Your task to perform on an android device: Open Youtube and go to "Your channel" Image 0: 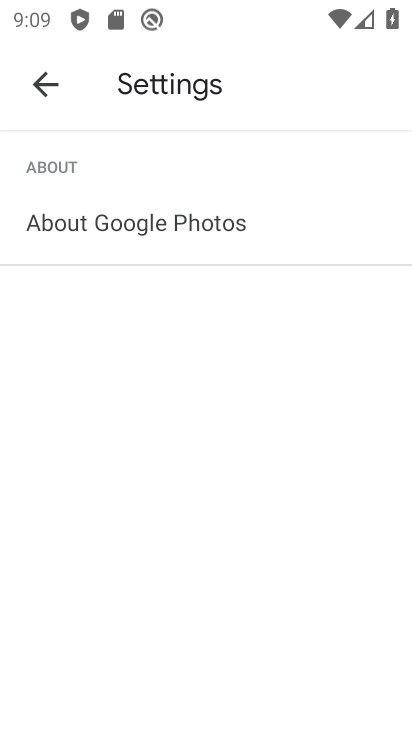
Step 0: press home button
Your task to perform on an android device: Open Youtube and go to "Your channel" Image 1: 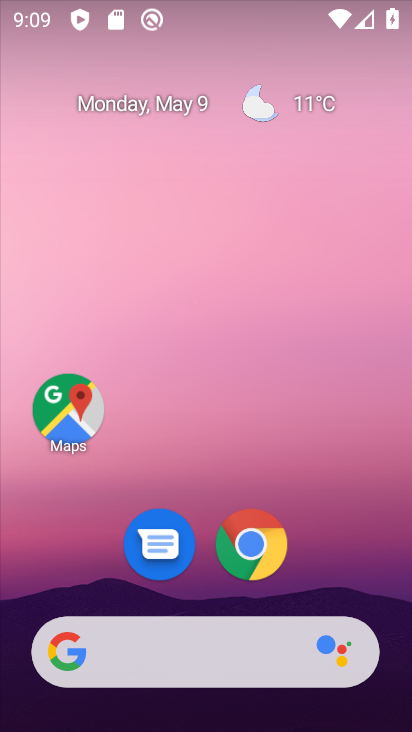
Step 1: drag from (388, 662) to (354, 169)
Your task to perform on an android device: Open Youtube and go to "Your channel" Image 2: 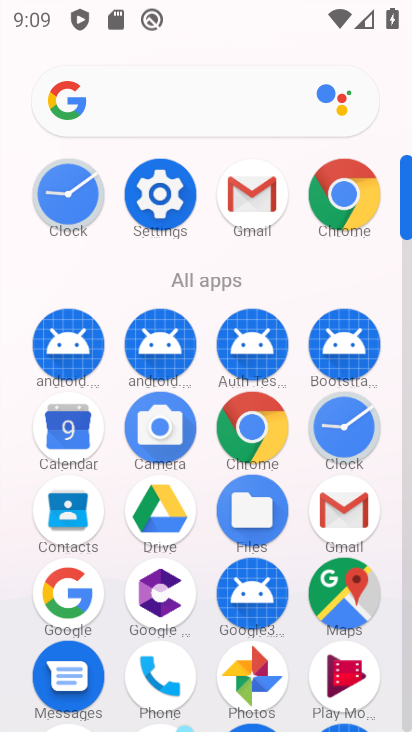
Step 2: drag from (405, 165) to (402, 127)
Your task to perform on an android device: Open Youtube and go to "Your channel" Image 3: 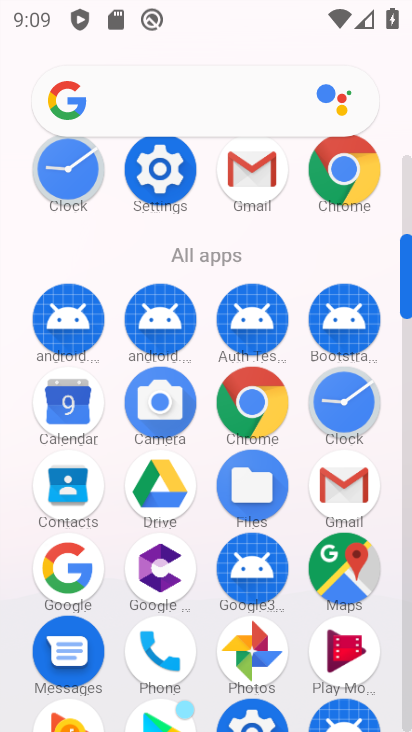
Step 3: drag from (409, 252) to (406, 142)
Your task to perform on an android device: Open Youtube and go to "Your channel" Image 4: 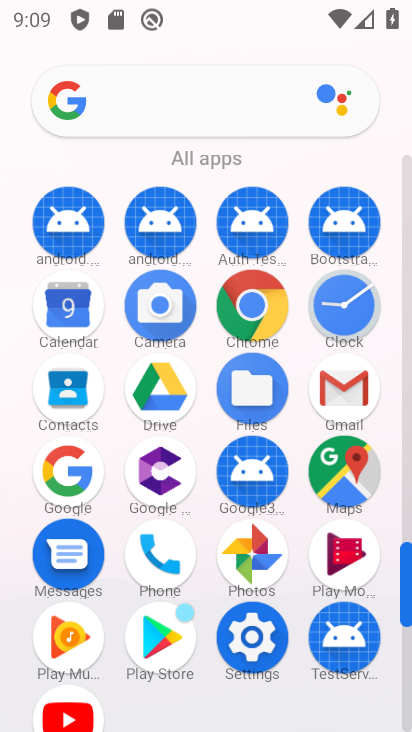
Step 4: click (63, 700)
Your task to perform on an android device: Open Youtube and go to "Your channel" Image 5: 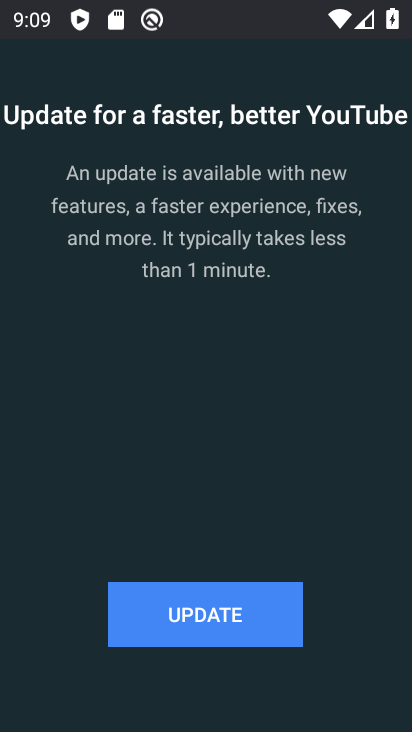
Step 5: click (261, 620)
Your task to perform on an android device: Open Youtube and go to "Your channel" Image 6: 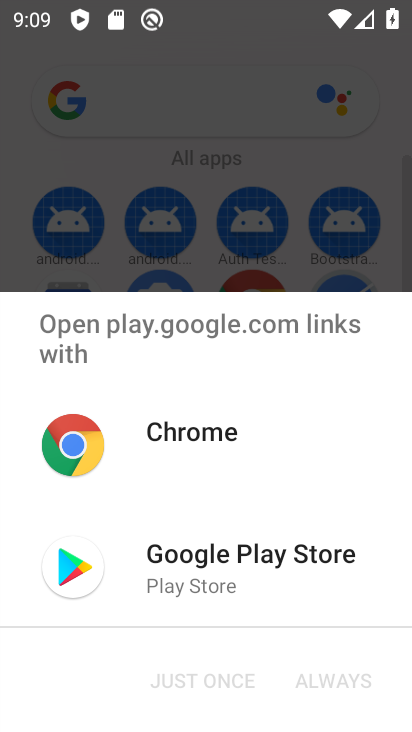
Step 6: click (178, 566)
Your task to perform on an android device: Open Youtube and go to "Your channel" Image 7: 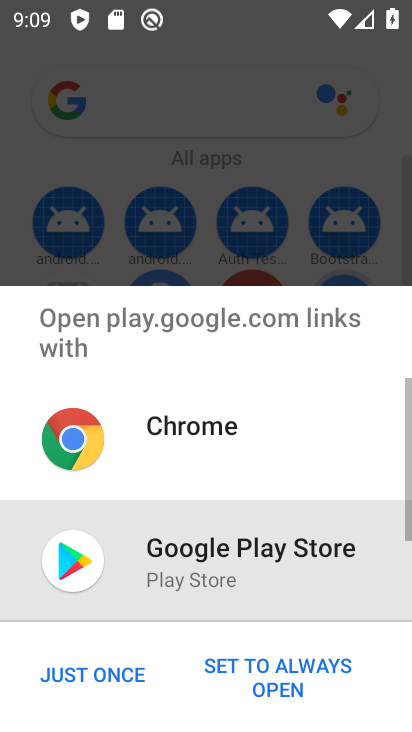
Step 7: click (83, 670)
Your task to perform on an android device: Open Youtube and go to "Your channel" Image 8: 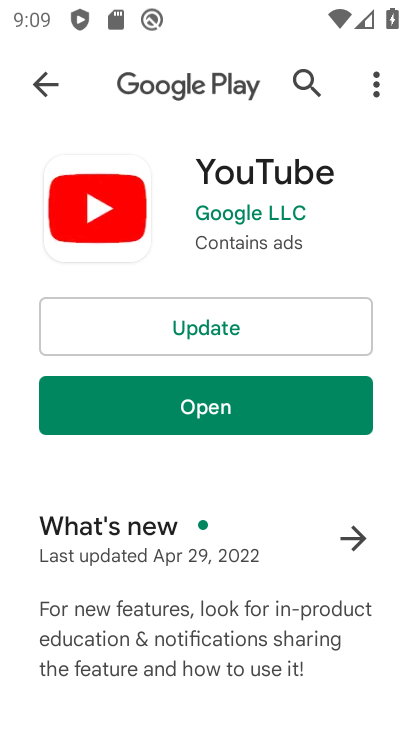
Step 8: click (247, 331)
Your task to perform on an android device: Open Youtube and go to "Your channel" Image 9: 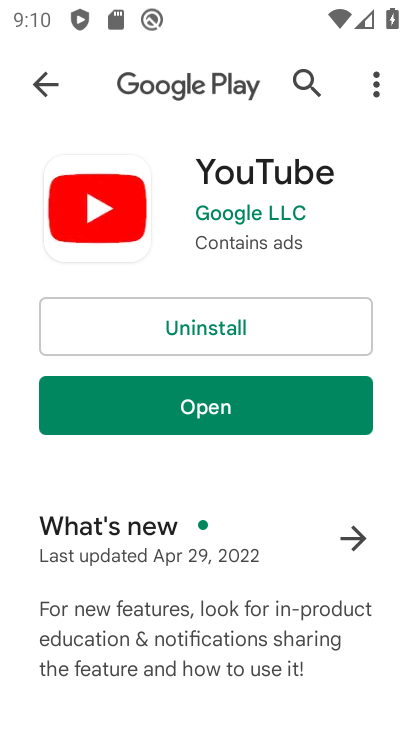
Step 9: click (200, 401)
Your task to perform on an android device: Open Youtube and go to "Your channel" Image 10: 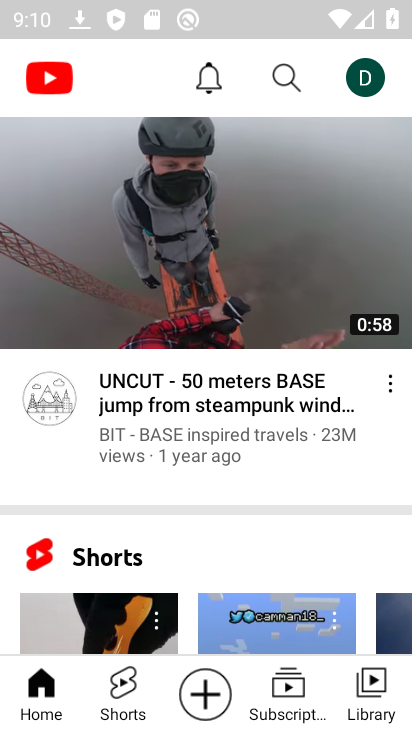
Step 10: click (373, 71)
Your task to perform on an android device: Open Youtube and go to "Your channel" Image 11: 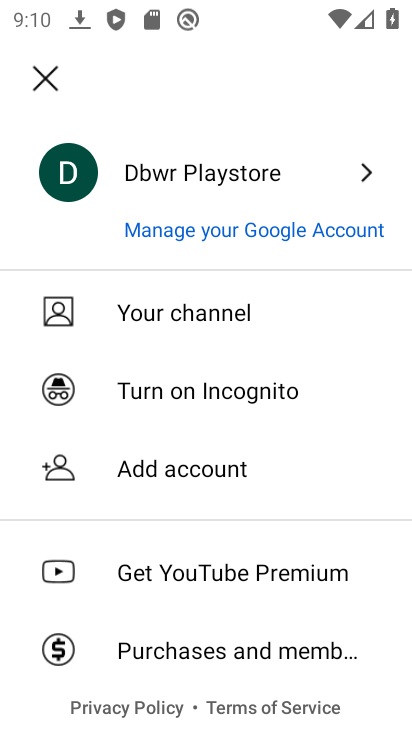
Step 11: click (209, 309)
Your task to perform on an android device: Open Youtube and go to "Your channel" Image 12: 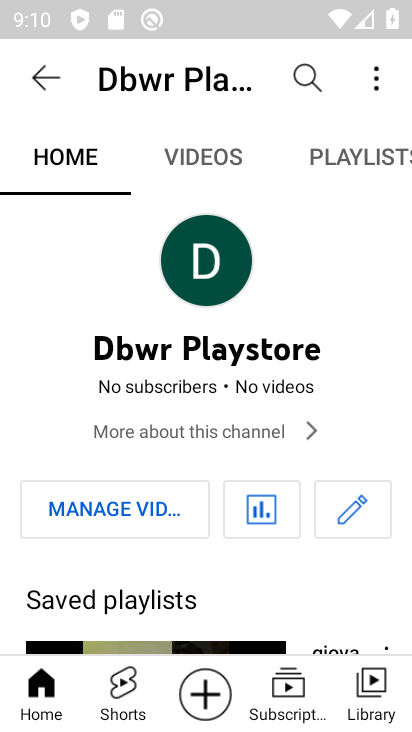
Step 12: task complete